Your task to perform on an android device: read, delete, or share a saved page in the chrome app Image 0: 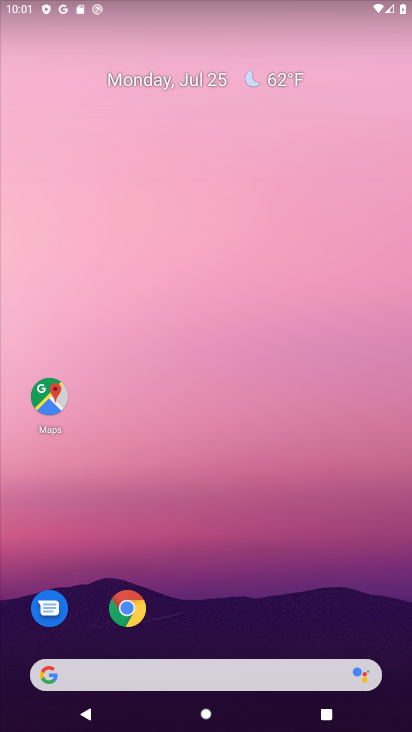
Step 0: click (138, 614)
Your task to perform on an android device: read, delete, or share a saved page in the chrome app Image 1: 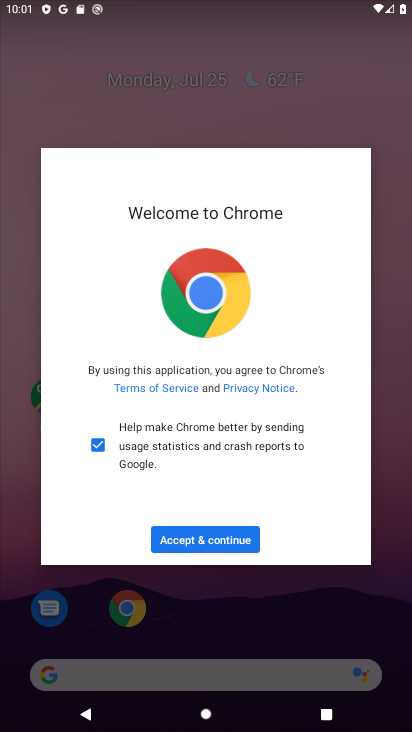
Step 1: click (224, 536)
Your task to perform on an android device: read, delete, or share a saved page in the chrome app Image 2: 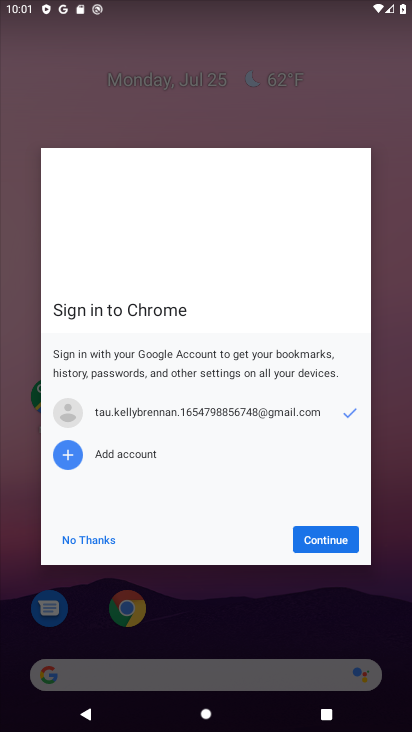
Step 2: click (338, 534)
Your task to perform on an android device: read, delete, or share a saved page in the chrome app Image 3: 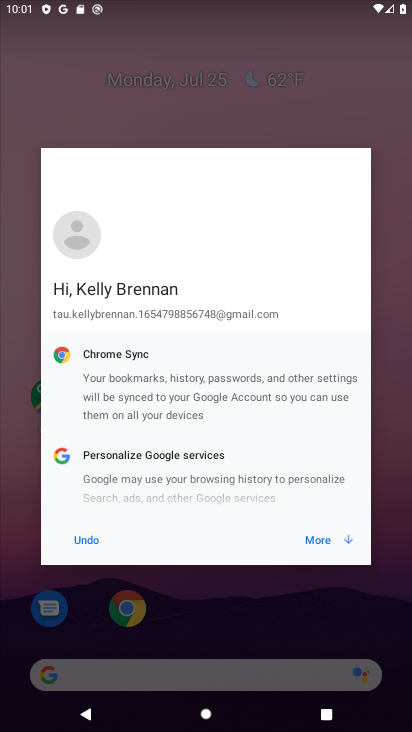
Step 3: click (328, 538)
Your task to perform on an android device: read, delete, or share a saved page in the chrome app Image 4: 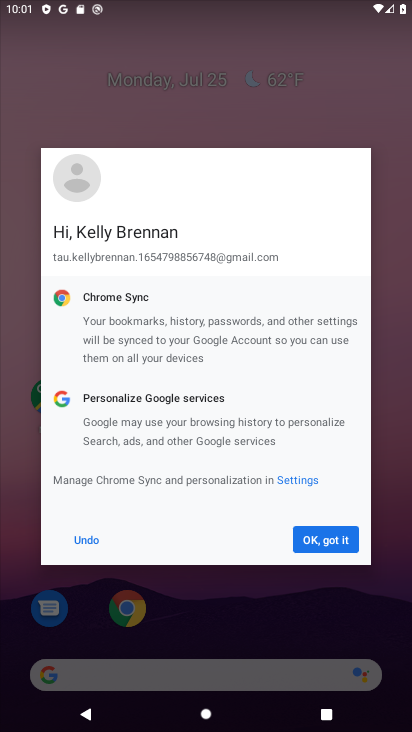
Step 4: click (348, 537)
Your task to perform on an android device: read, delete, or share a saved page in the chrome app Image 5: 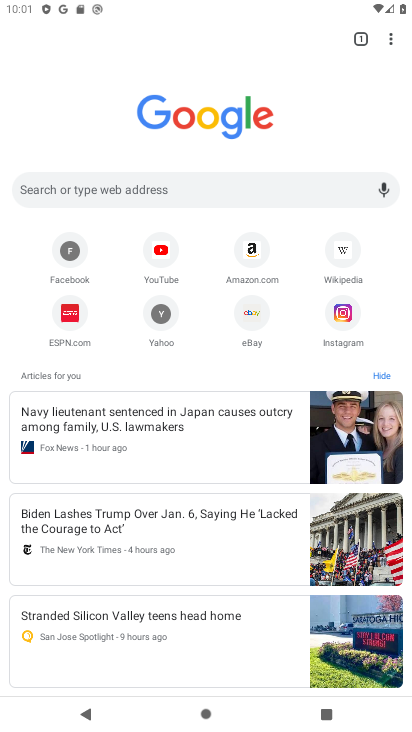
Step 5: task complete